Your task to perform on an android device: Go to settings Image 0: 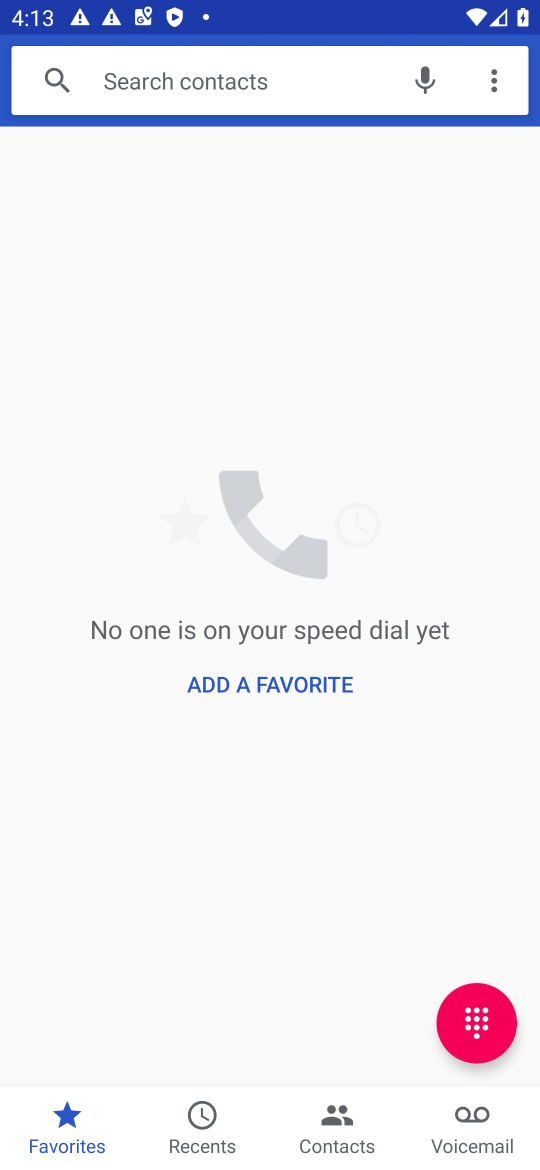
Step 0: press home button
Your task to perform on an android device: Go to settings Image 1: 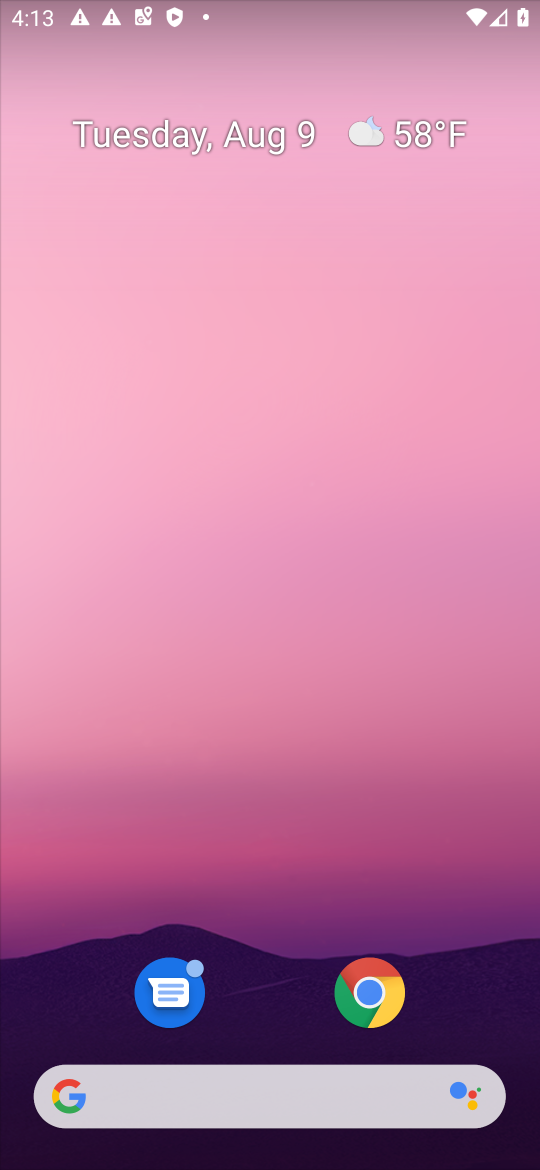
Step 1: drag from (417, 1087) to (434, 0)
Your task to perform on an android device: Go to settings Image 2: 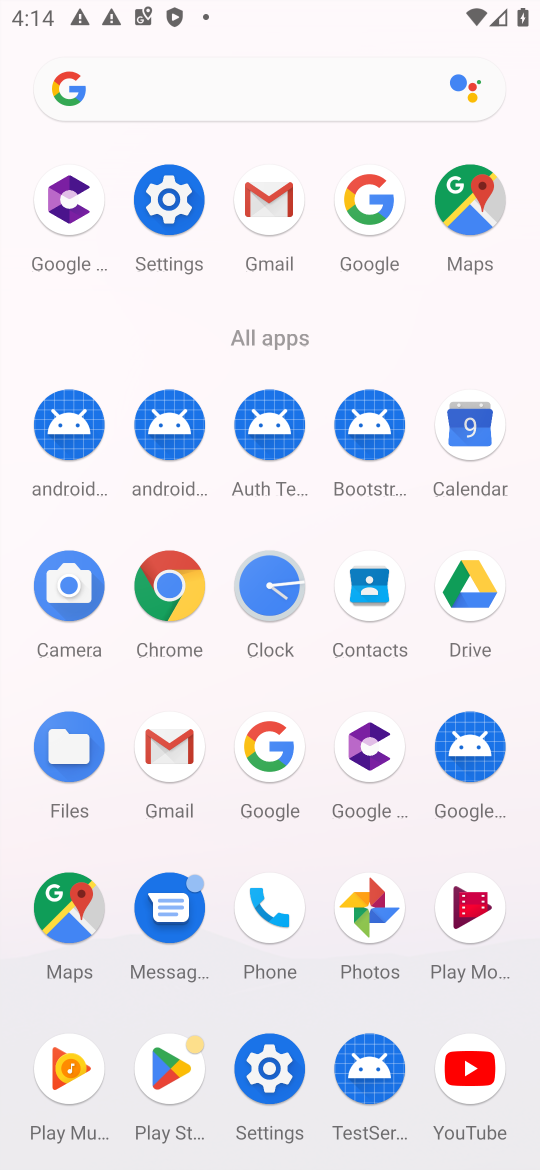
Step 2: click (144, 183)
Your task to perform on an android device: Go to settings Image 3: 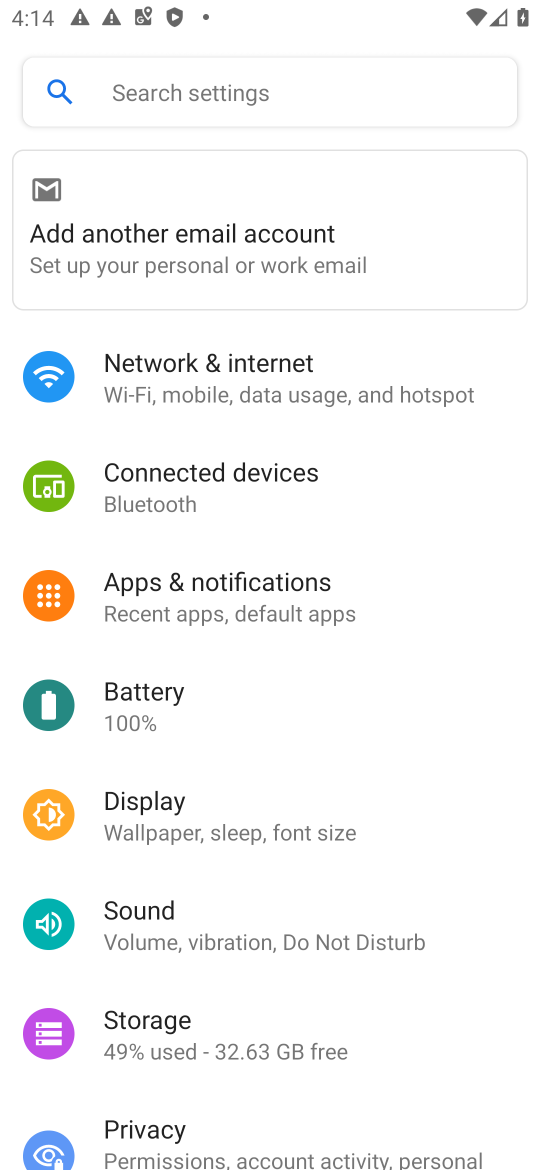
Step 3: task complete